Your task to perform on an android device: toggle airplane mode Image 0: 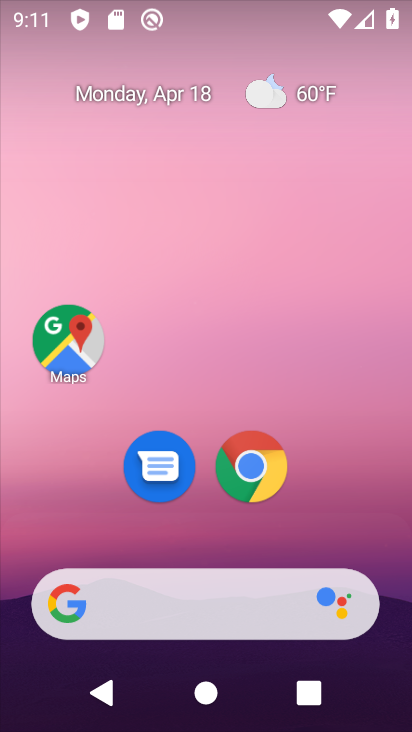
Step 0: drag from (302, 521) to (267, 0)
Your task to perform on an android device: toggle airplane mode Image 1: 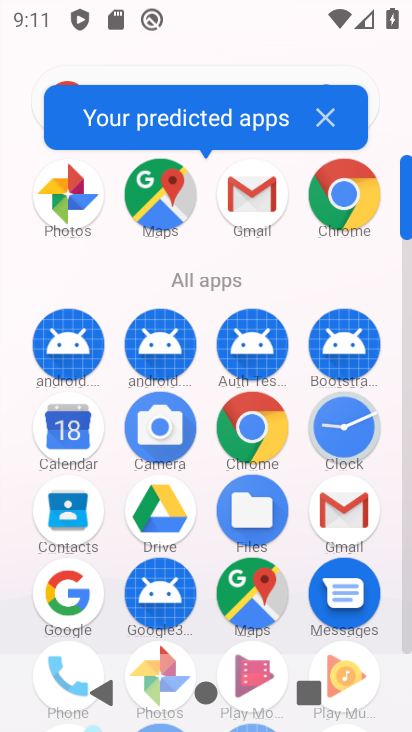
Step 1: drag from (213, 556) to (222, 0)
Your task to perform on an android device: toggle airplane mode Image 2: 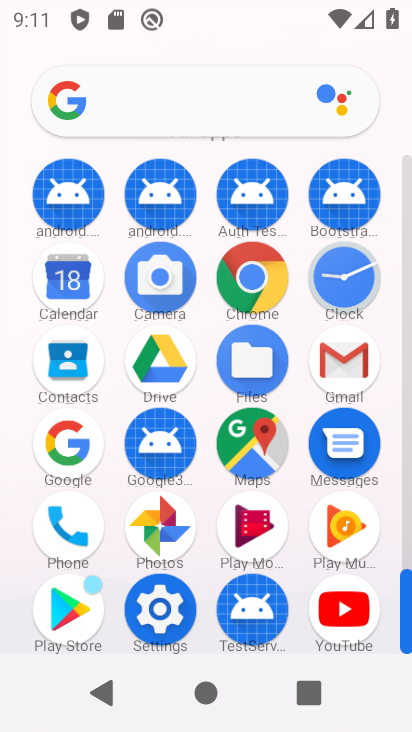
Step 2: click (152, 599)
Your task to perform on an android device: toggle airplane mode Image 3: 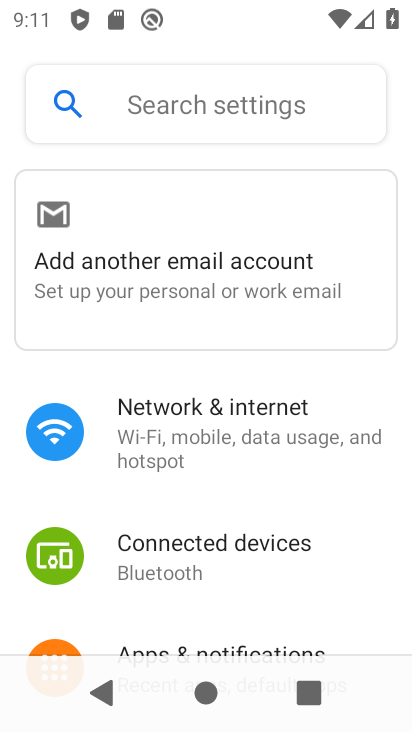
Step 3: click (187, 427)
Your task to perform on an android device: toggle airplane mode Image 4: 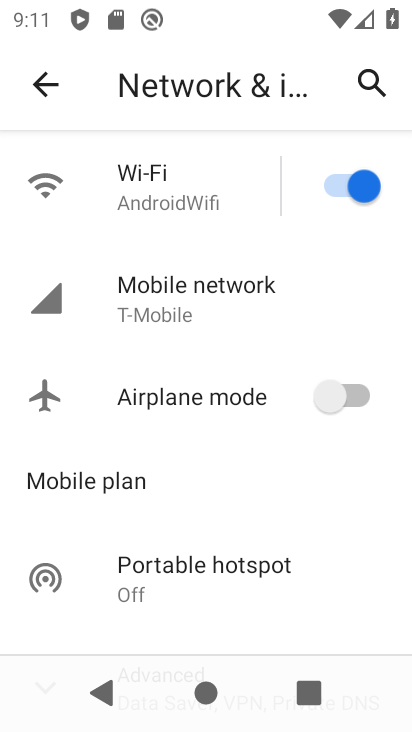
Step 4: click (329, 398)
Your task to perform on an android device: toggle airplane mode Image 5: 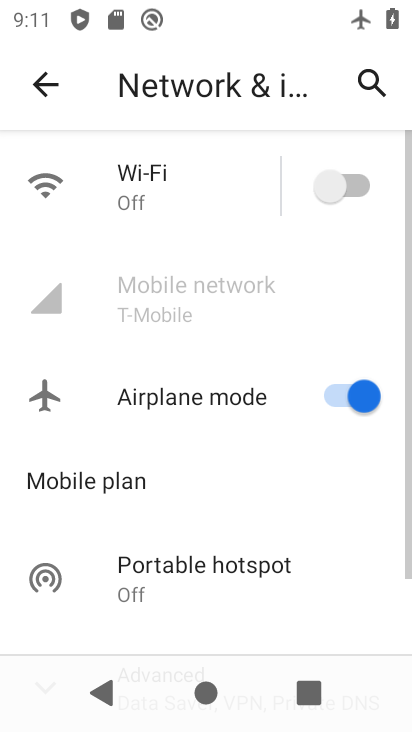
Step 5: task complete